Your task to perform on an android device: turn off location Image 0: 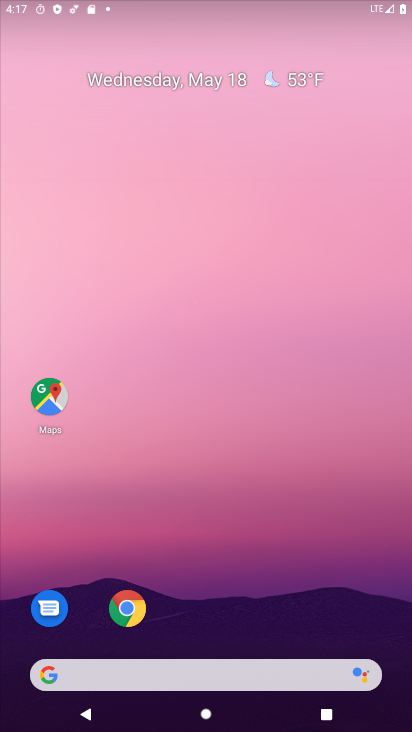
Step 0: drag from (303, 649) to (276, 140)
Your task to perform on an android device: turn off location Image 1: 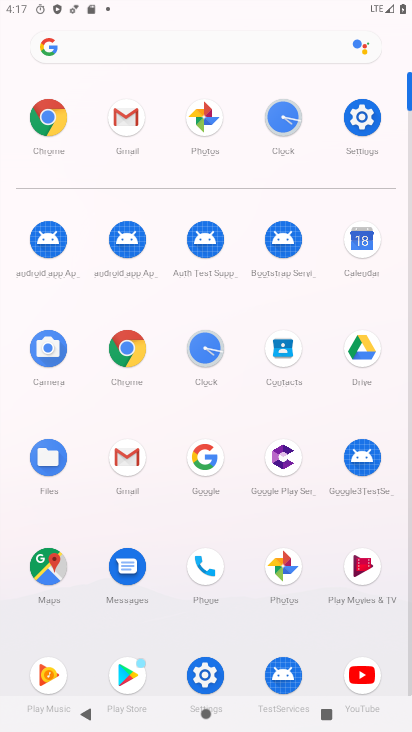
Step 1: click (126, 346)
Your task to perform on an android device: turn off location Image 2: 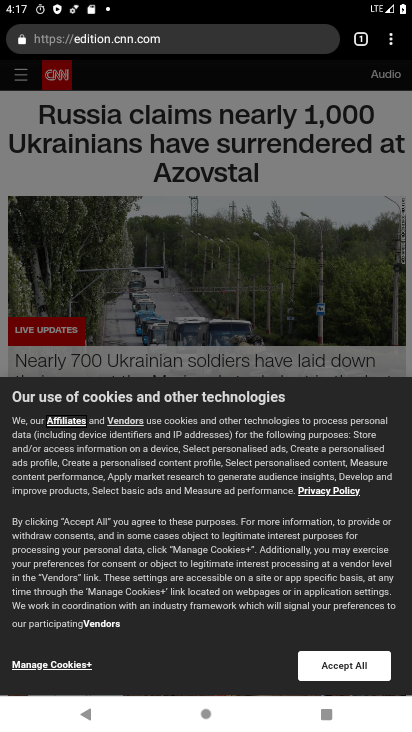
Step 2: click (395, 30)
Your task to perform on an android device: turn off location Image 3: 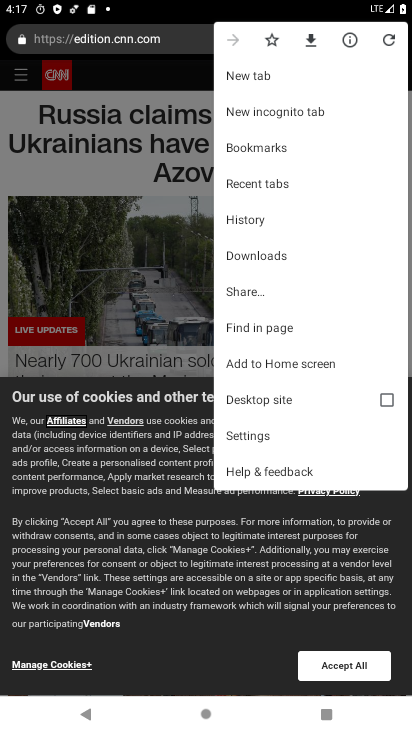
Step 3: click (271, 435)
Your task to perform on an android device: turn off location Image 4: 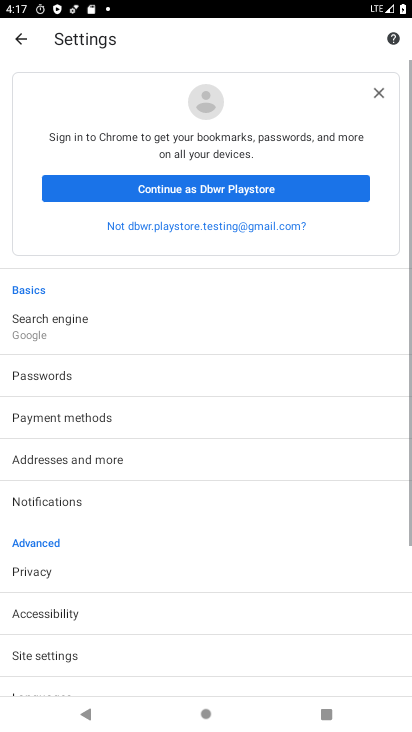
Step 4: drag from (214, 671) to (203, 421)
Your task to perform on an android device: turn off location Image 5: 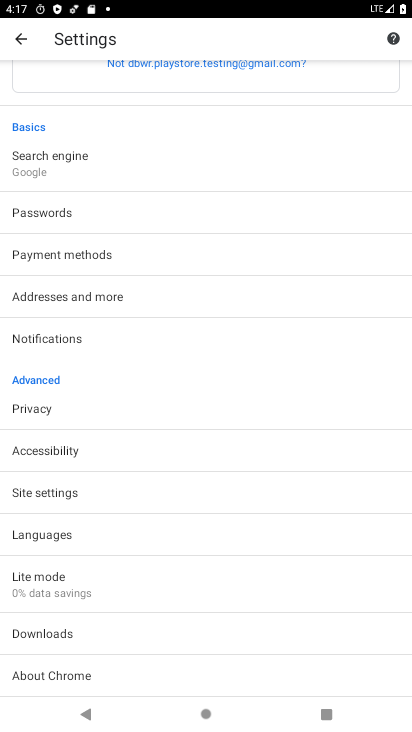
Step 5: press home button
Your task to perform on an android device: turn off location Image 6: 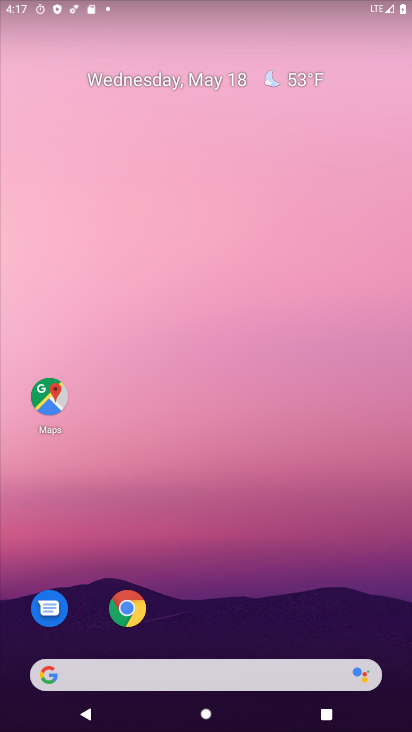
Step 6: drag from (221, 658) to (207, 116)
Your task to perform on an android device: turn off location Image 7: 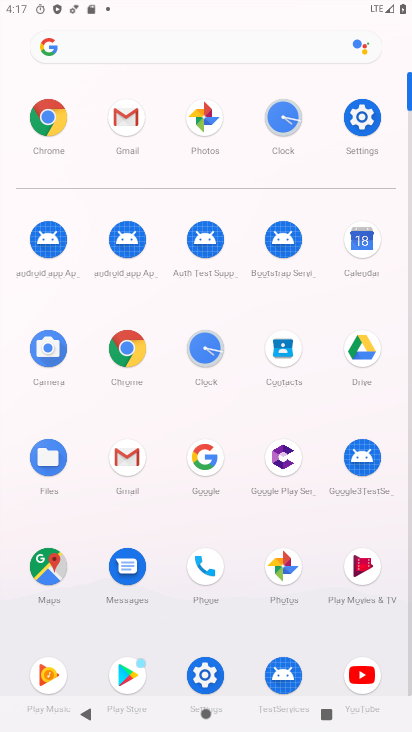
Step 7: click (352, 125)
Your task to perform on an android device: turn off location Image 8: 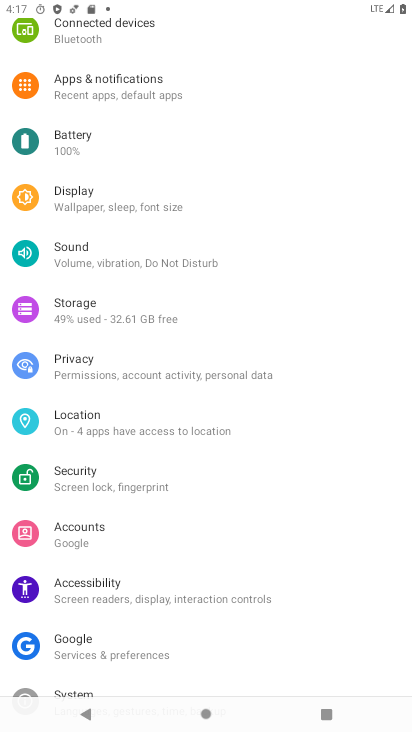
Step 8: click (136, 427)
Your task to perform on an android device: turn off location Image 9: 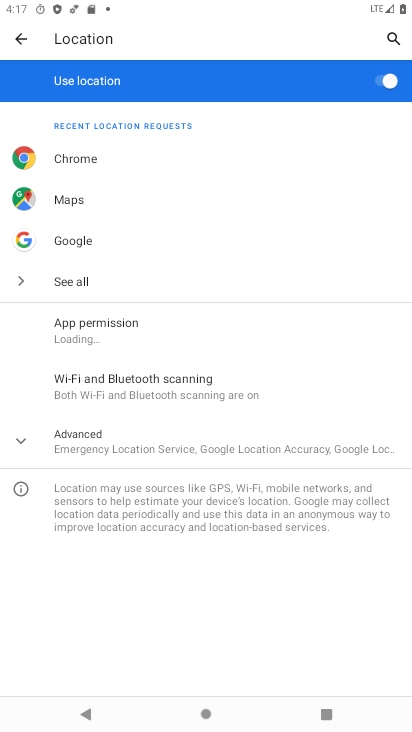
Step 9: click (381, 84)
Your task to perform on an android device: turn off location Image 10: 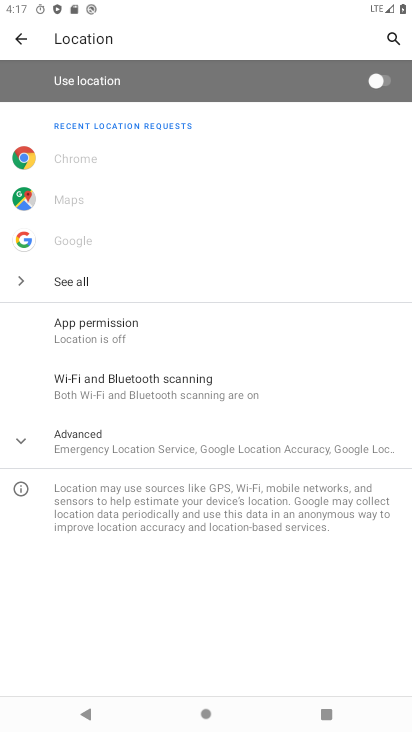
Step 10: task complete